Your task to perform on an android device: Go to Maps Image 0: 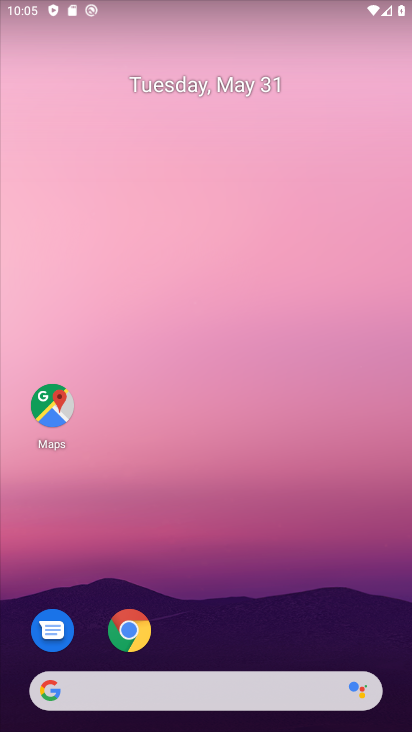
Step 0: click (59, 409)
Your task to perform on an android device: Go to Maps Image 1: 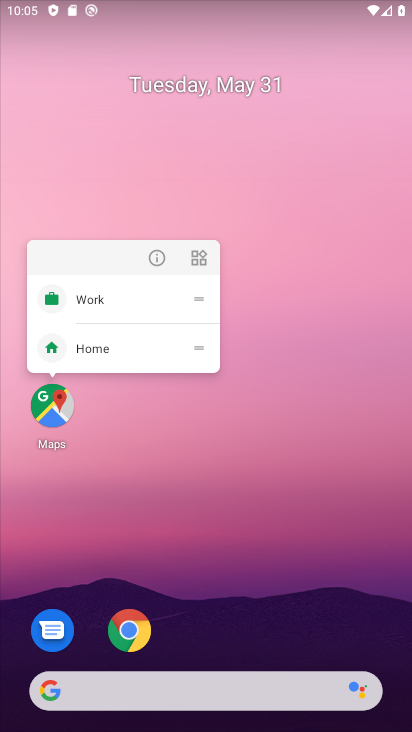
Step 1: click (49, 387)
Your task to perform on an android device: Go to Maps Image 2: 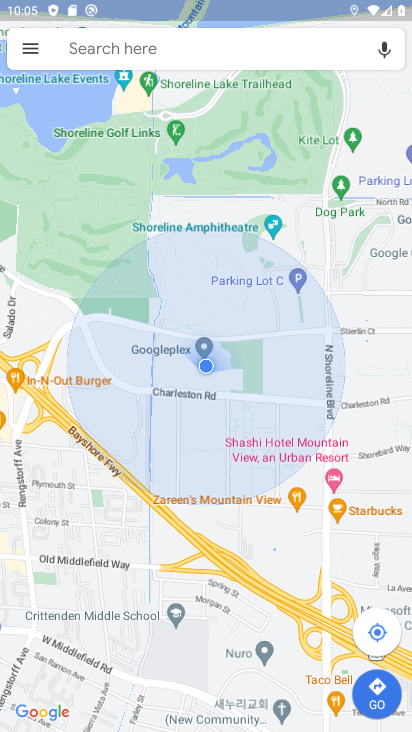
Step 2: task complete